Your task to perform on an android device: change alarm snooze length Image 0: 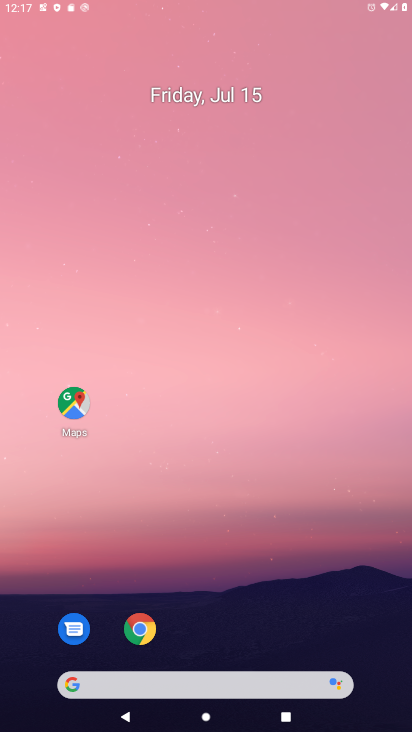
Step 0: press home button
Your task to perform on an android device: change alarm snooze length Image 1: 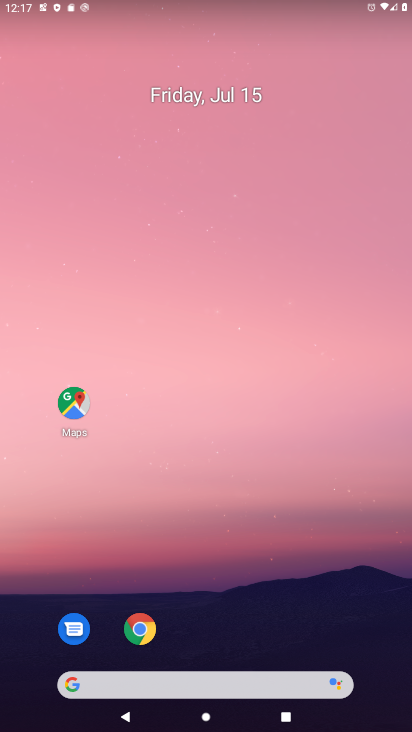
Step 1: drag from (233, 654) to (142, 32)
Your task to perform on an android device: change alarm snooze length Image 2: 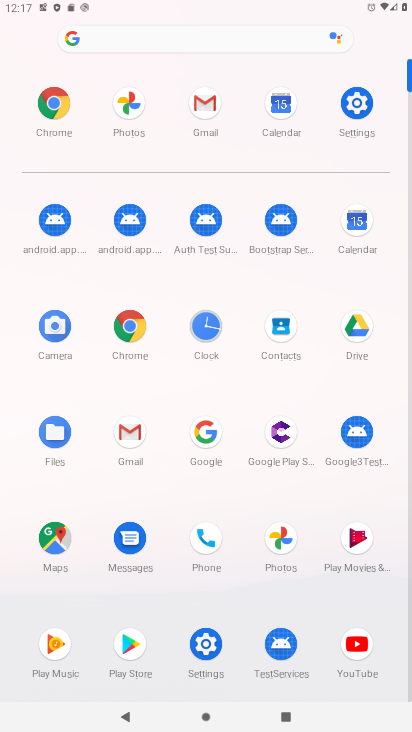
Step 2: click (200, 326)
Your task to perform on an android device: change alarm snooze length Image 3: 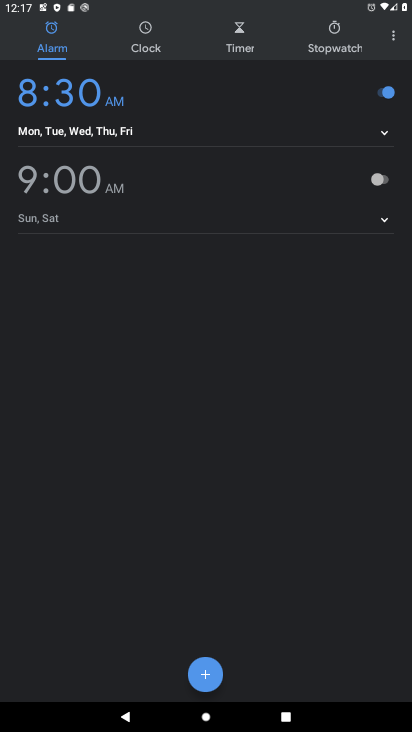
Step 3: click (393, 38)
Your task to perform on an android device: change alarm snooze length Image 4: 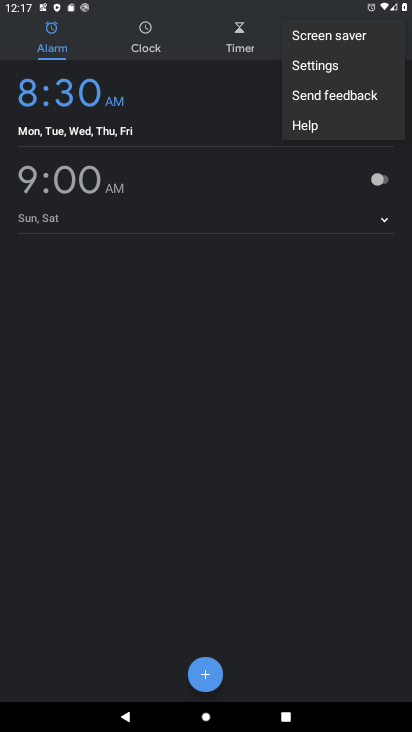
Step 4: click (334, 70)
Your task to perform on an android device: change alarm snooze length Image 5: 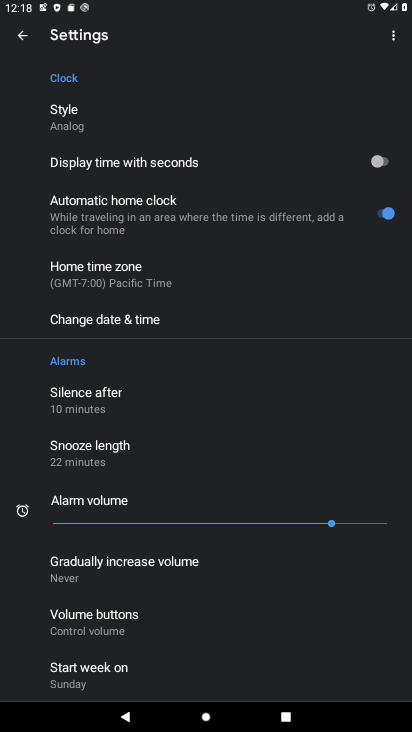
Step 5: click (91, 454)
Your task to perform on an android device: change alarm snooze length Image 6: 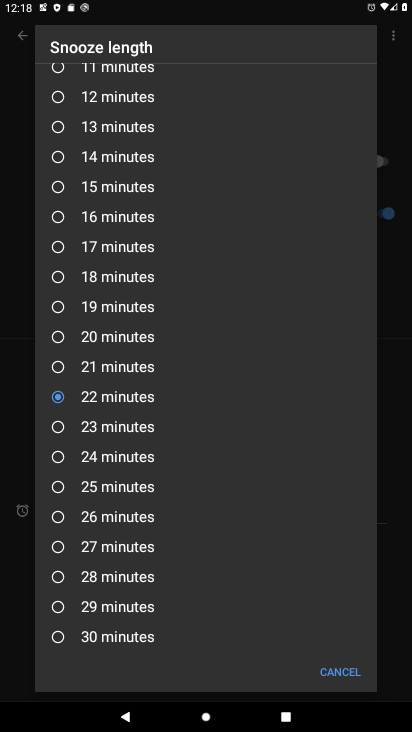
Step 6: click (62, 223)
Your task to perform on an android device: change alarm snooze length Image 7: 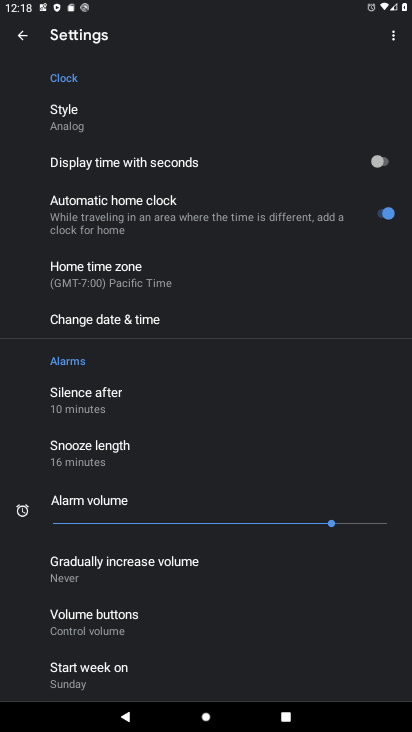
Step 7: task complete